Your task to perform on an android device: Go to accessibility settings Image 0: 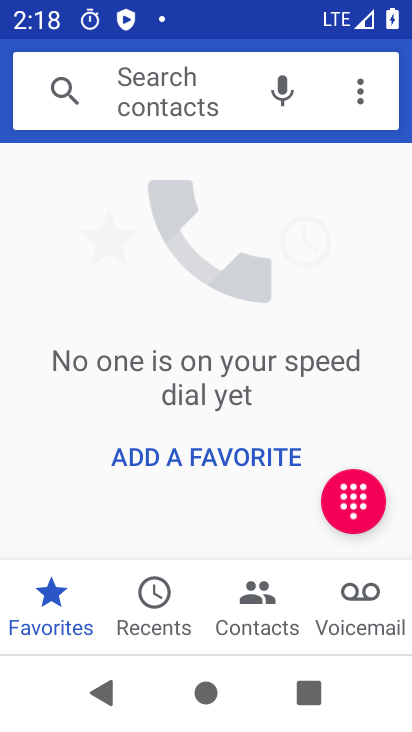
Step 0: press home button
Your task to perform on an android device: Go to accessibility settings Image 1: 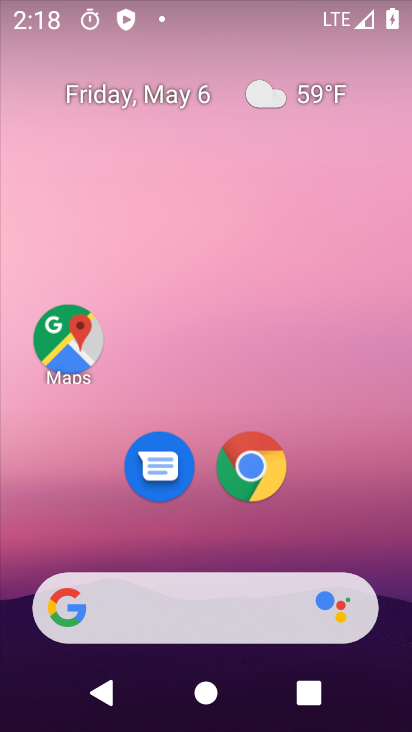
Step 1: drag from (300, 437) to (332, 9)
Your task to perform on an android device: Go to accessibility settings Image 2: 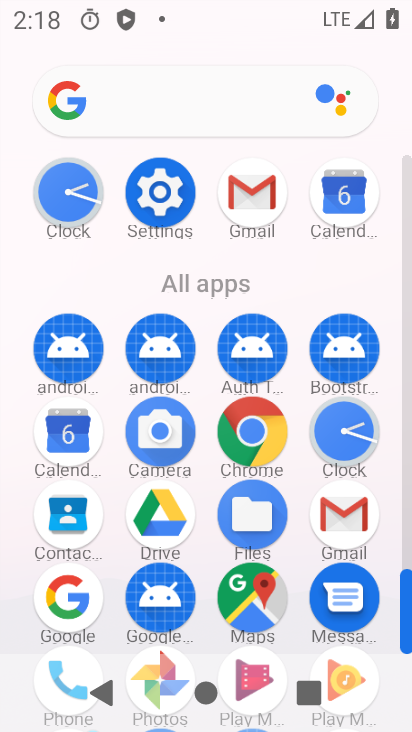
Step 2: click (171, 189)
Your task to perform on an android device: Go to accessibility settings Image 3: 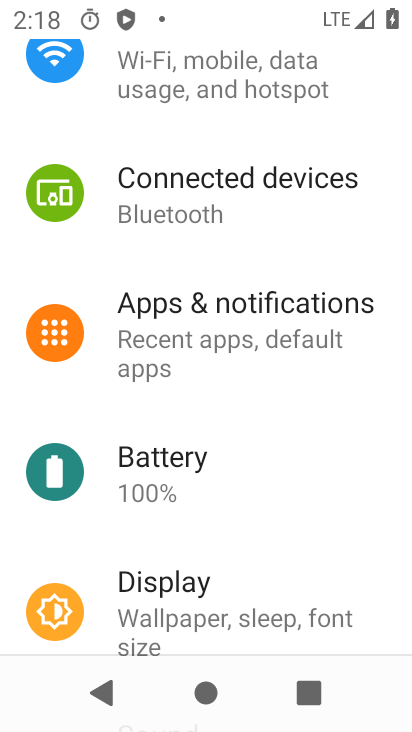
Step 3: drag from (226, 552) to (312, 64)
Your task to perform on an android device: Go to accessibility settings Image 4: 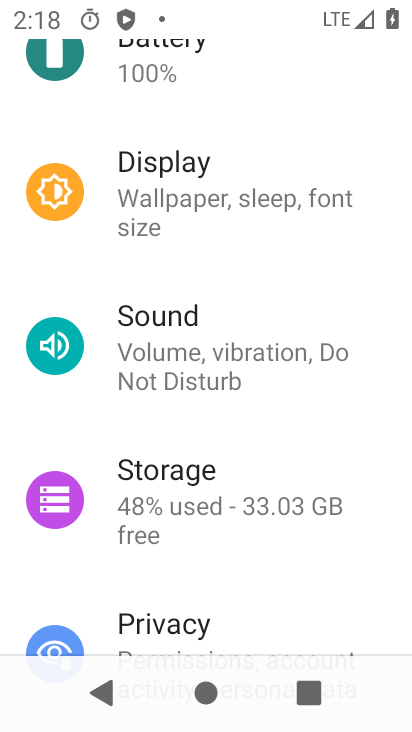
Step 4: drag from (262, 567) to (372, 31)
Your task to perform on an android device: Go to accessibility settings Image 5: 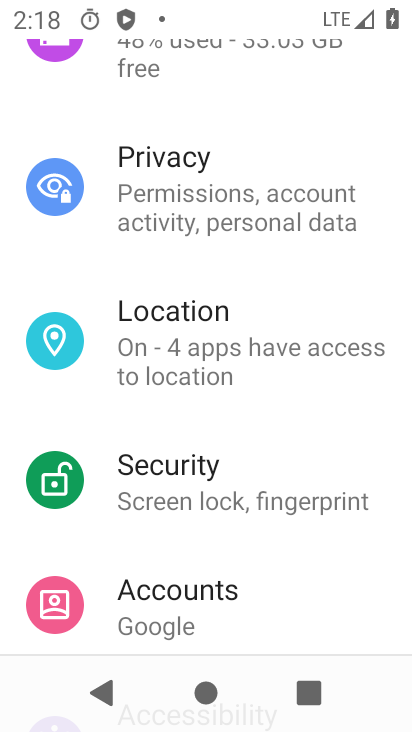
Step 5: drag from (219, 517) to (372, 67)
Your task to perform on an android device: Go to accessibility settings Image 6: 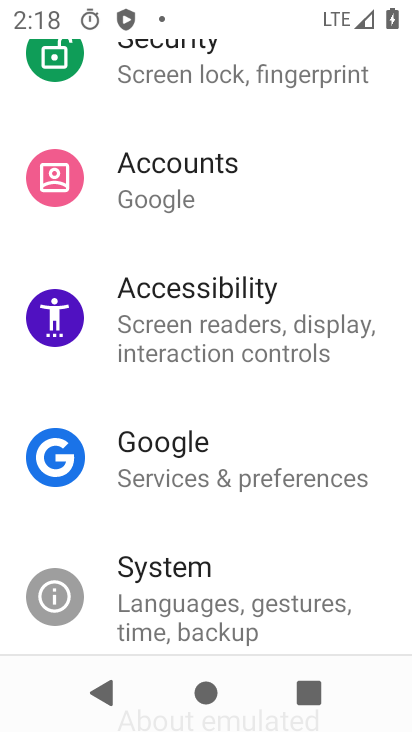
Step 6: click (219, 292)
Your task to perform on an android device: Go to accessibility settings Image 7: 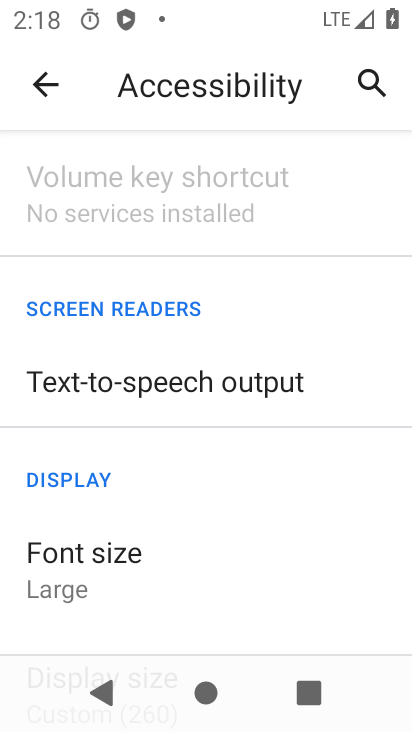
Step 7: task complete